Your task to perform on an android device: Show me popular games on the Play Store Image 0: 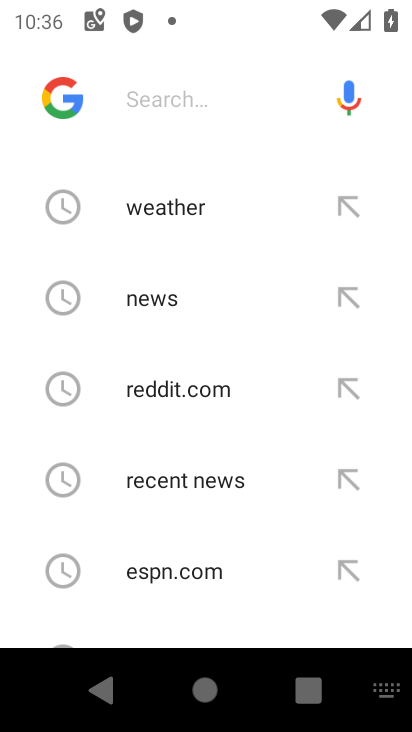
Step 0: press home button
Your task to perform on an android device: Show me popular games on the Play Store Image 1: 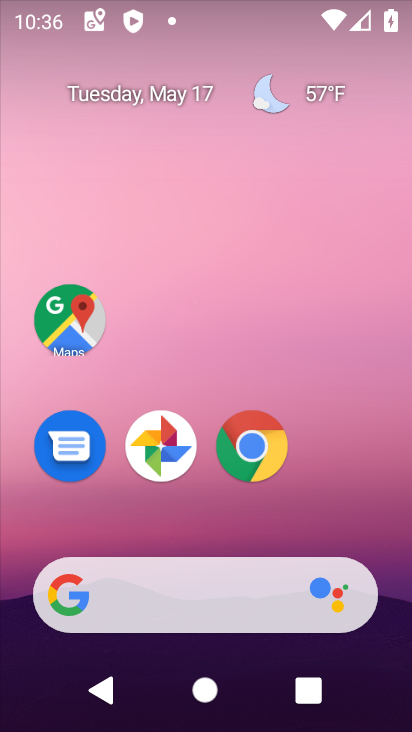
Step 1: drag from (212, 587) to (243, 40)
Your task to perform on an android device: Show me popular games on the Play Store Image 2: 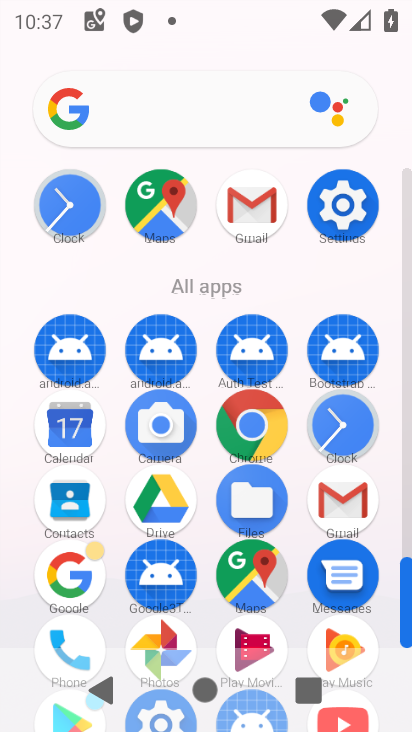
Step 2: drag from (190, 564) to (187, 182)
Your task to perform on an android device: Show me popular games on the Play Store Image 3: 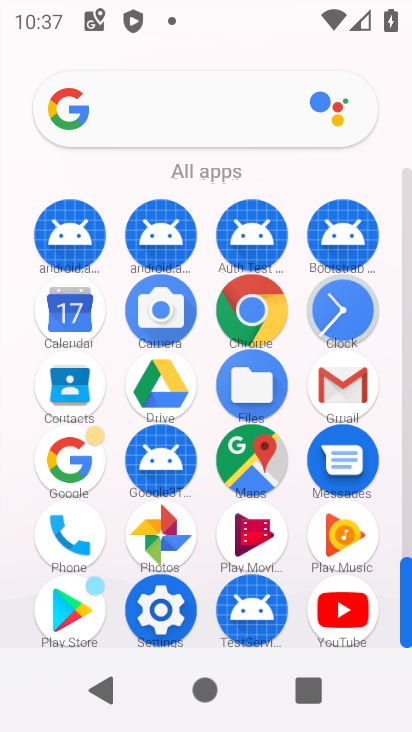
Step 3: click (99, 607)
Your task to perform on an android device: Show me popular games on the Play Store Image 4: 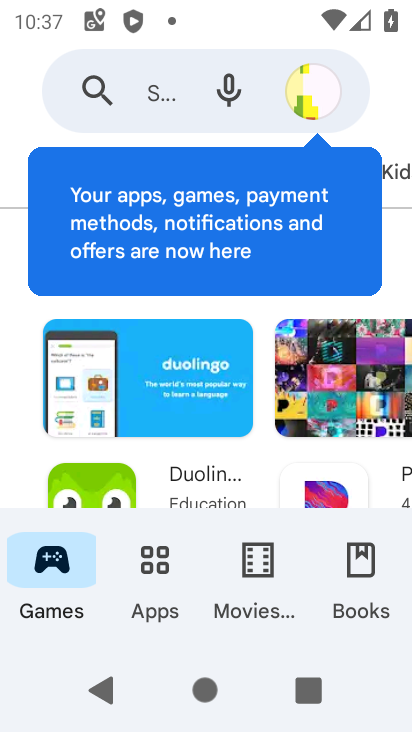
Step 4: drag from (248, 414) to (237, 102)
Your task to perform on an android device: Show me popular games on the Play Store Image 5: 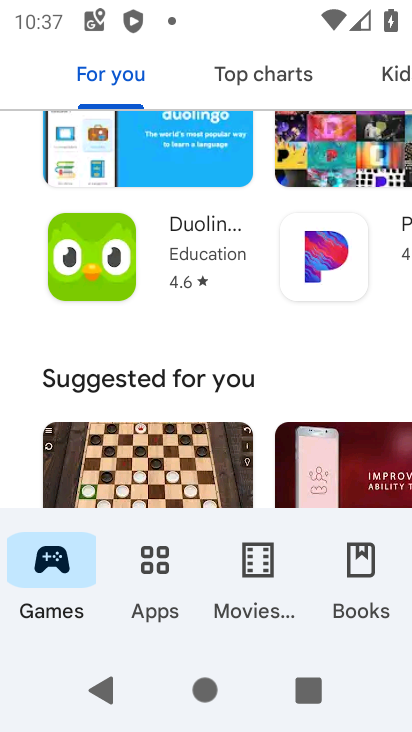
Step 5: drag from (249, 387) to (247, 108)
Your task to perform on an android device: Show me popular games on the Play Store Image 6: 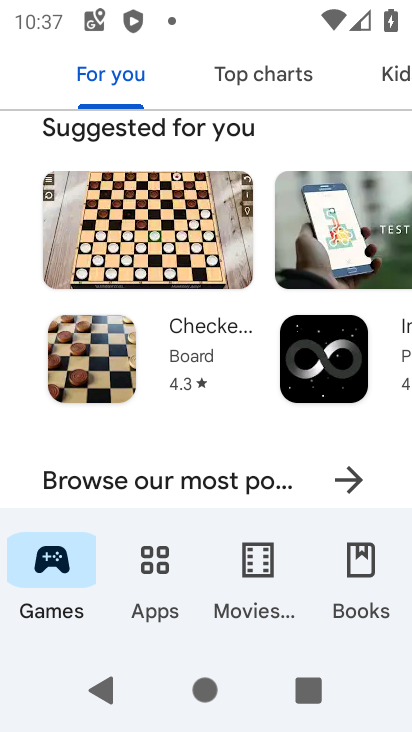
Step 6: click (357, 478)
Your task to perform on an android device: Show me popular games on the Play Store Image 7: 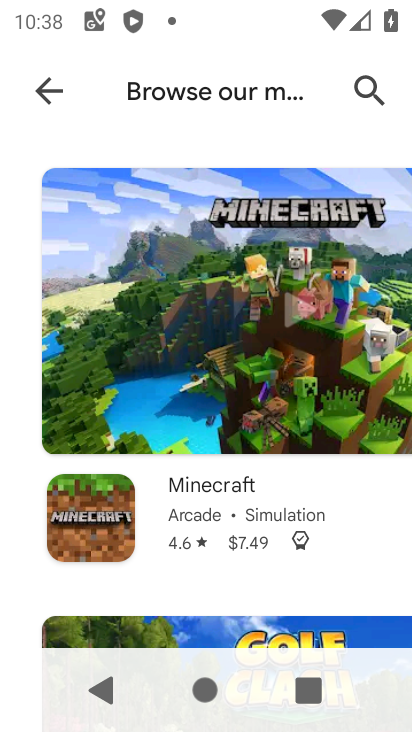
Step 7: task complete